Your task to perform on an android device: find photos in the google photos app Image 0: 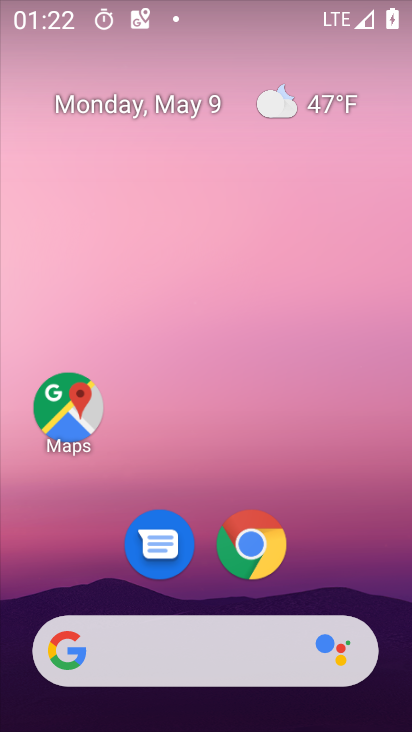
Step 0: drag from (304, 584) to (306, 4)
Your task to perform on an android device: find photos in the google photos app Image 1: 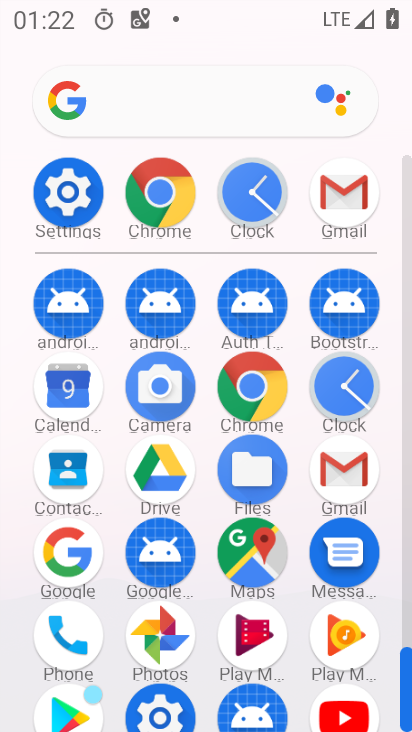
Step 1: click (176, 632)
Your task to perform on an android device: find photos in the google photos app Image 2: 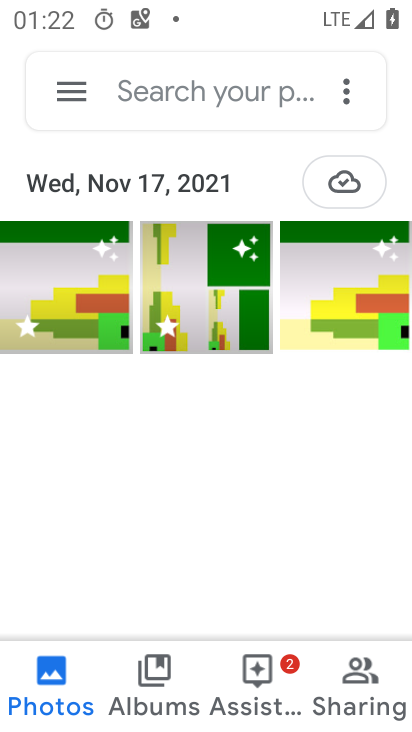
Step 2: task complete